Your task to perform on an android device: Open notification settings Image 0: 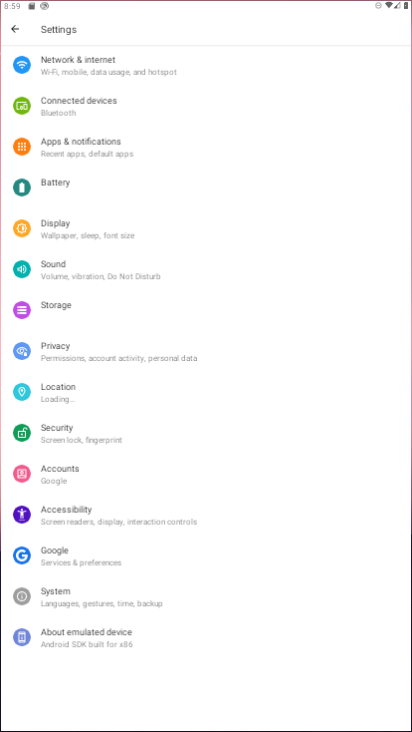
Step 0: press home button
Your task to perform on an android device: Open notification settings Image 1: 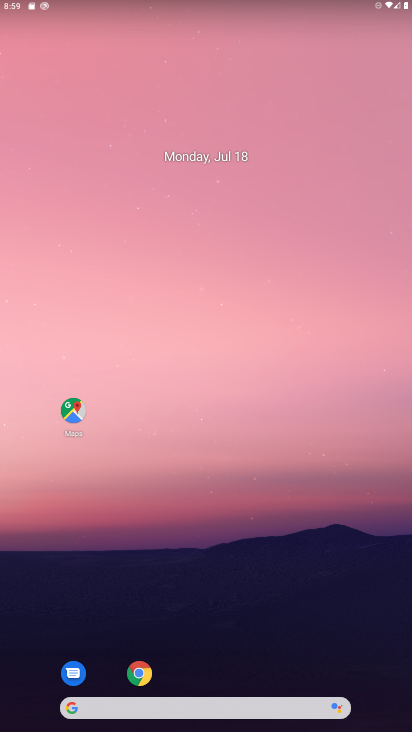
Step 1: drag from (249, 638) to (330, 0)
Your task to perform on an android device: Open notification settings Image 2: 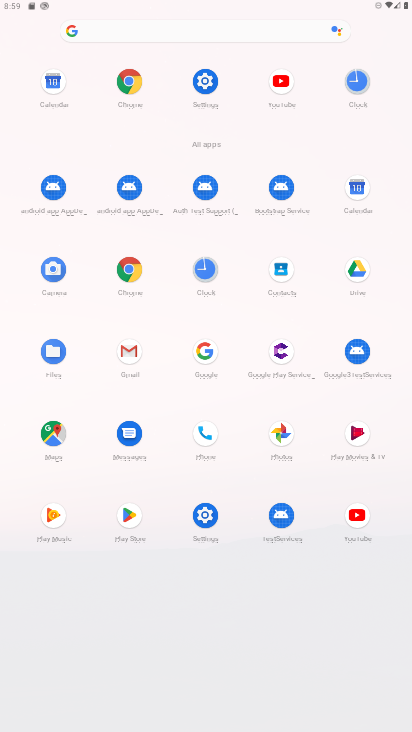
Step 2: click (202, 86)
Your task to perform on an android device: Open notification settings Image 3: 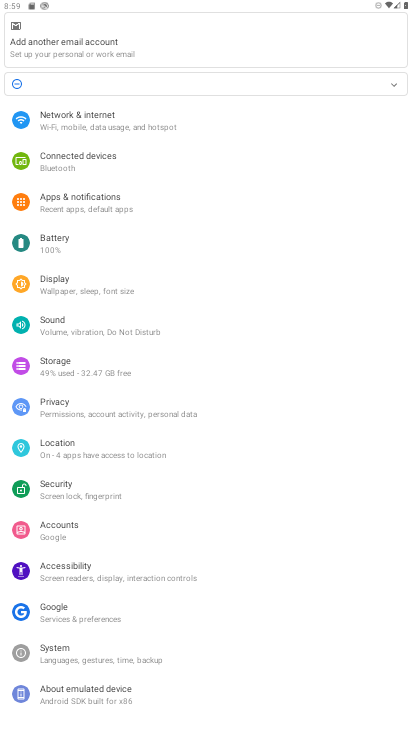
Step 3: click (82, 200)
Your task to perform on an android device: Open notification settings Image 4: 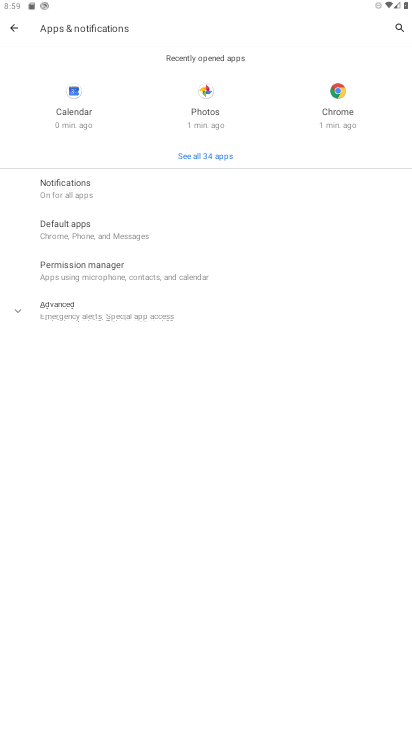
Step 4: click (59, 184)
Your task to perform on an android device: Open notification settings Image 5: 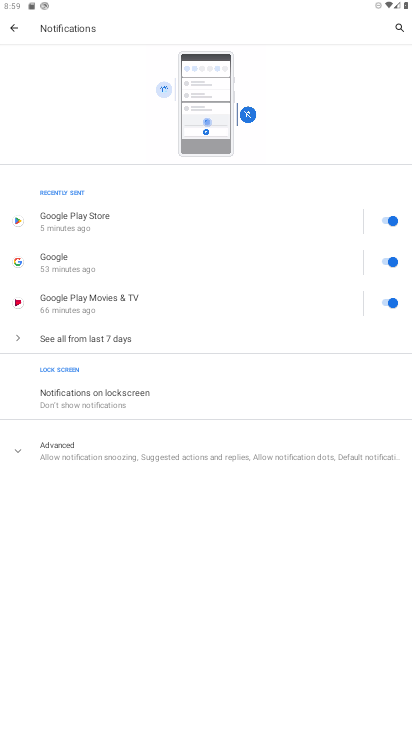
Step 5: task complete